Your task to perform on an android device: delete a single message in the gmail app Image 0: 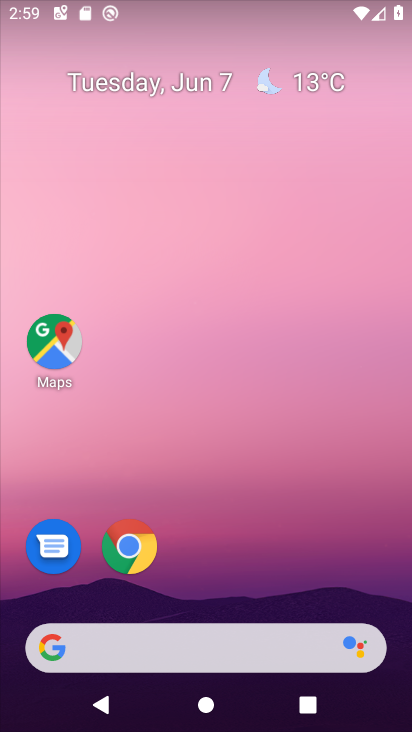
Step 0: drag from (316, 554) to (387, 139)
Your task to perform on an android device: delete a single message in the gmail app Image 1: 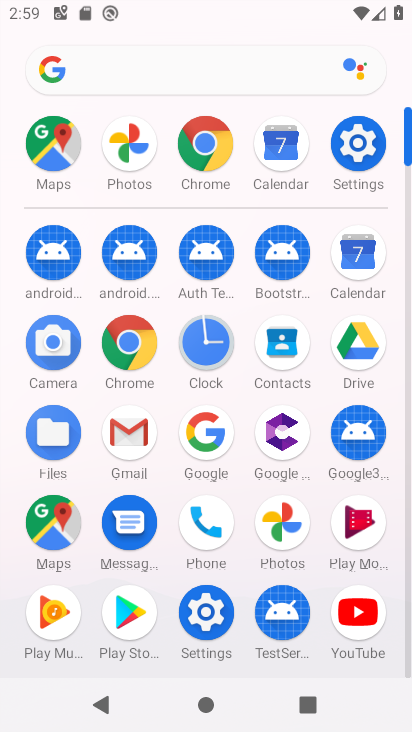
Step 1: click (121, 434)
Your task to perform on an android device: delete a single message in the gmail app Image 2: 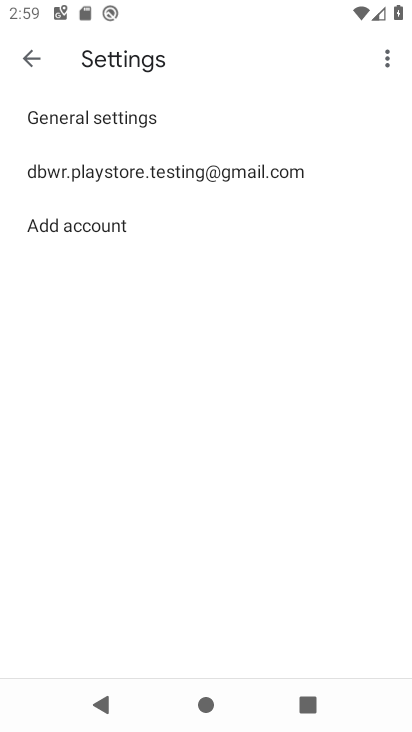
Step 2: task complete